Your task to perform on an android device: check battery use Image 0: 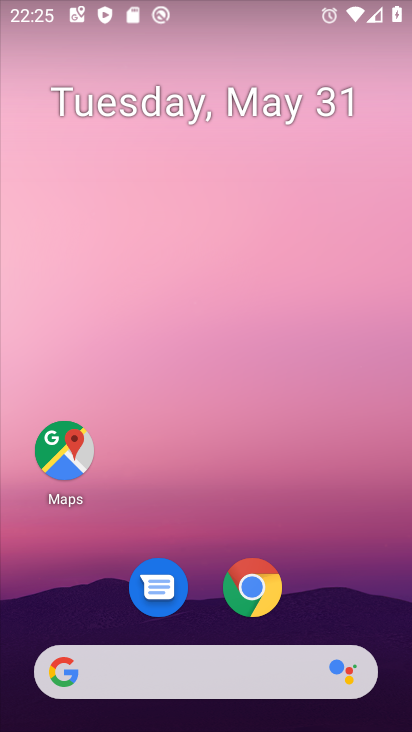
Step 0: drag from (350, 623) to (370, 406)
Your task to perform on an android device: check battery use Image 1: 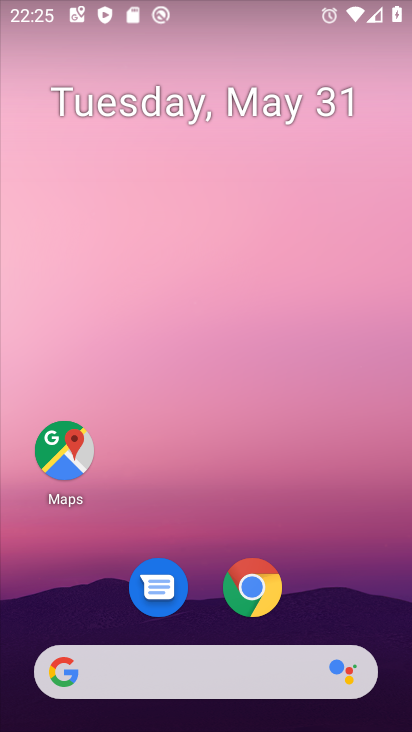
Step 1: drag from (339, 585) to (386, 153)
Your task to perform on an android device: check battery use Image 2: 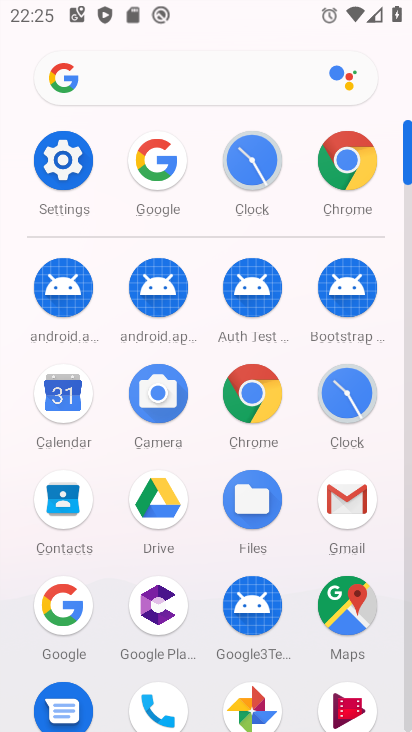
Step 2: click (98, 218)
Your task to perform on an android device: check battery use Image 3: 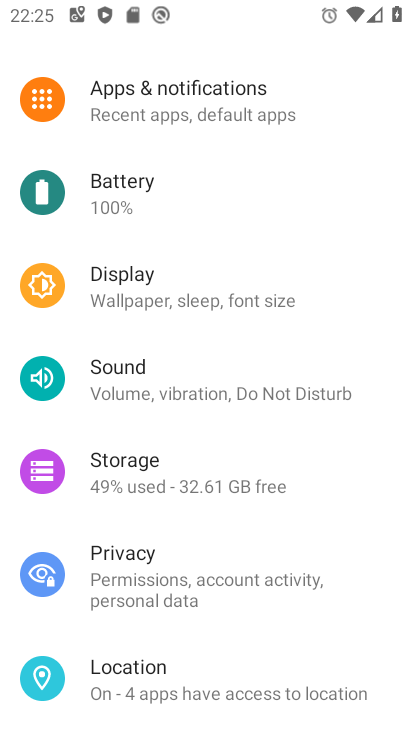
Step 3: drag from (322, 198) to (339, 260)
Your task to perform on an android device: check battery use Image 4: 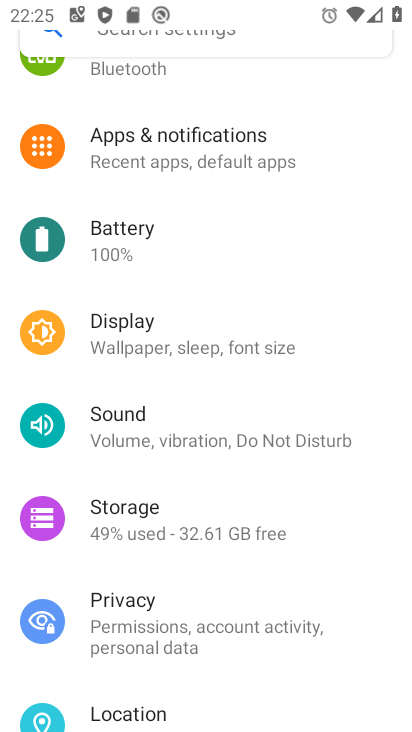
Step 4: click (356, 238)
Your task to perform on an android device: check battery use Image 5: 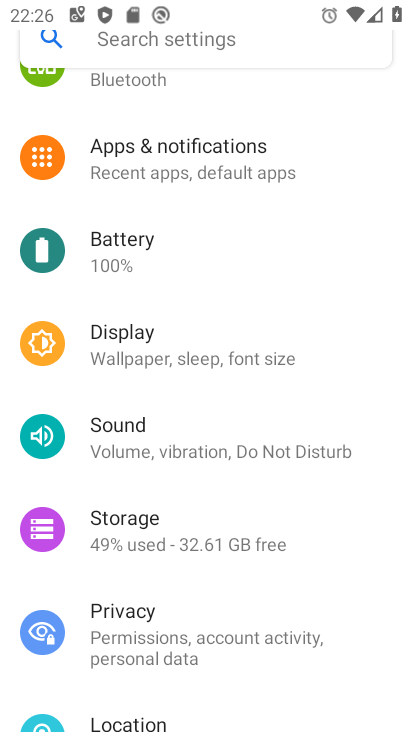
Step 5: drag from (388, 193) to (376, 313)
Your task to perform on an android device: check battery use Image 6: 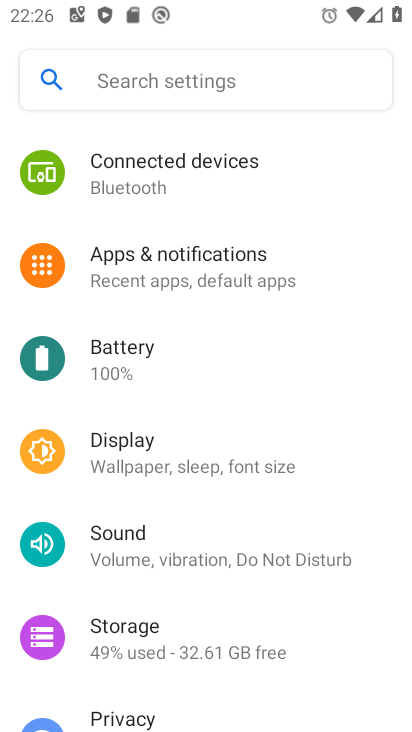
Step 6: click (161, 382)
Your task to perform on an android device: check battery use Image 7: 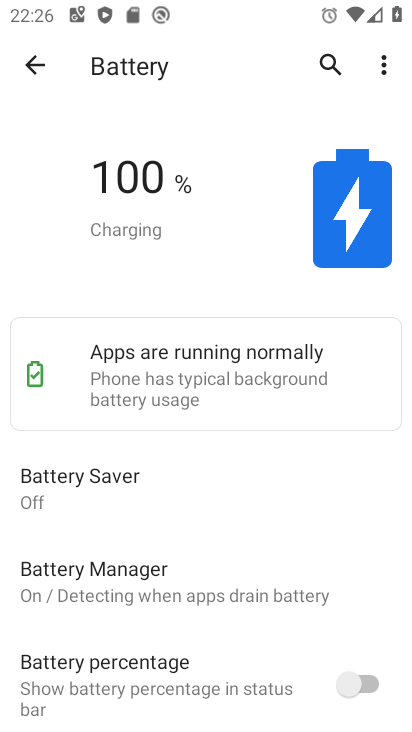
Step 7: click (388, 83)
Your task to perform on an android device: check battery use Image 8: 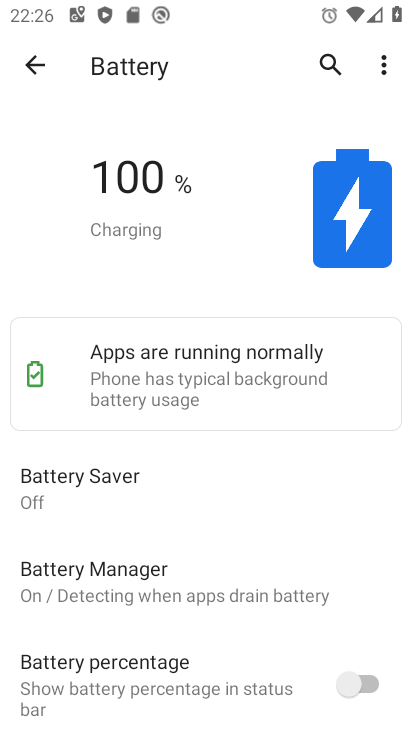
Step 8: task complete